Your task to perform on an android device: View the shopping cart on amazon. Search for "acer nitro" on amazon, select the first entry, add it to the cart, then select checkout. Image 0: 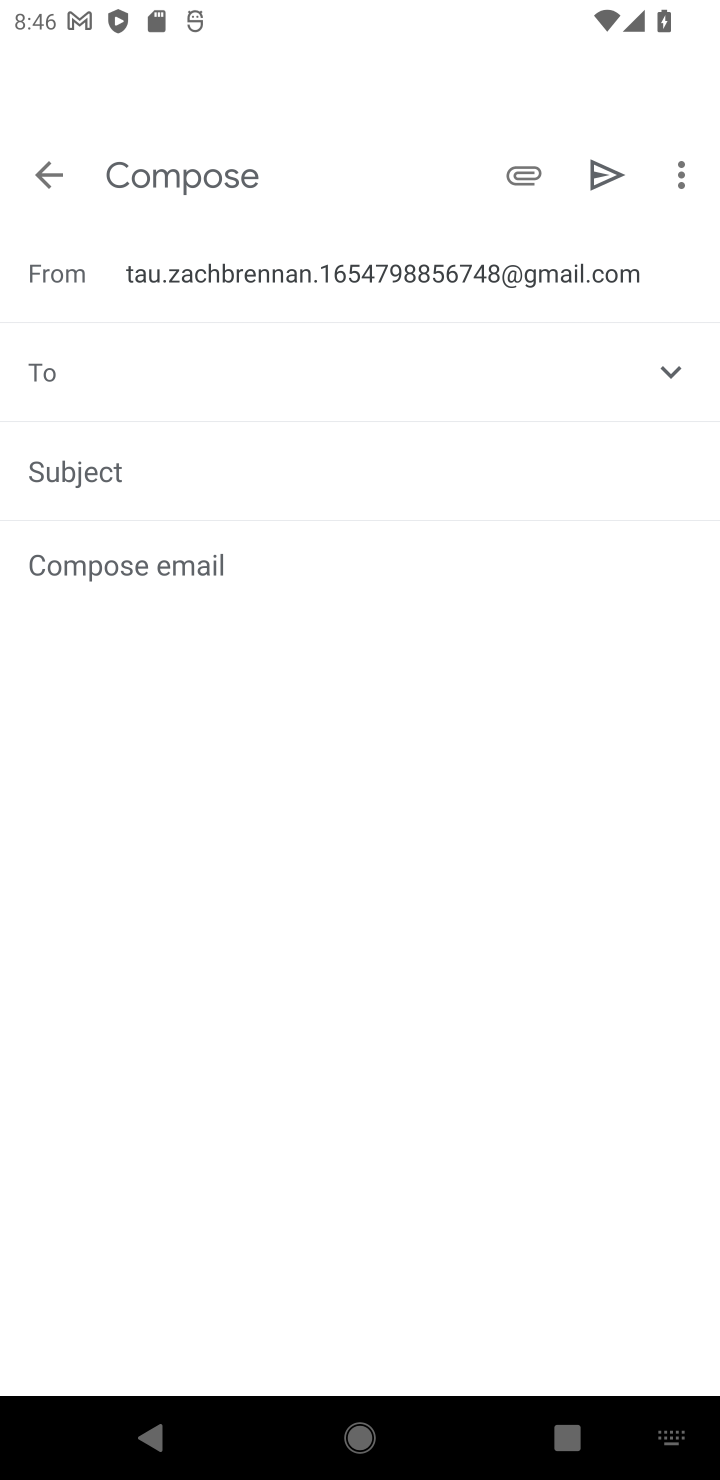
Step 0: press home button
Your task to perform on an android device: View the shopping cart on amazon. Search for "acer nitro" on amazon, select the first entry, add it to the cart, then select checkout. Image 1: 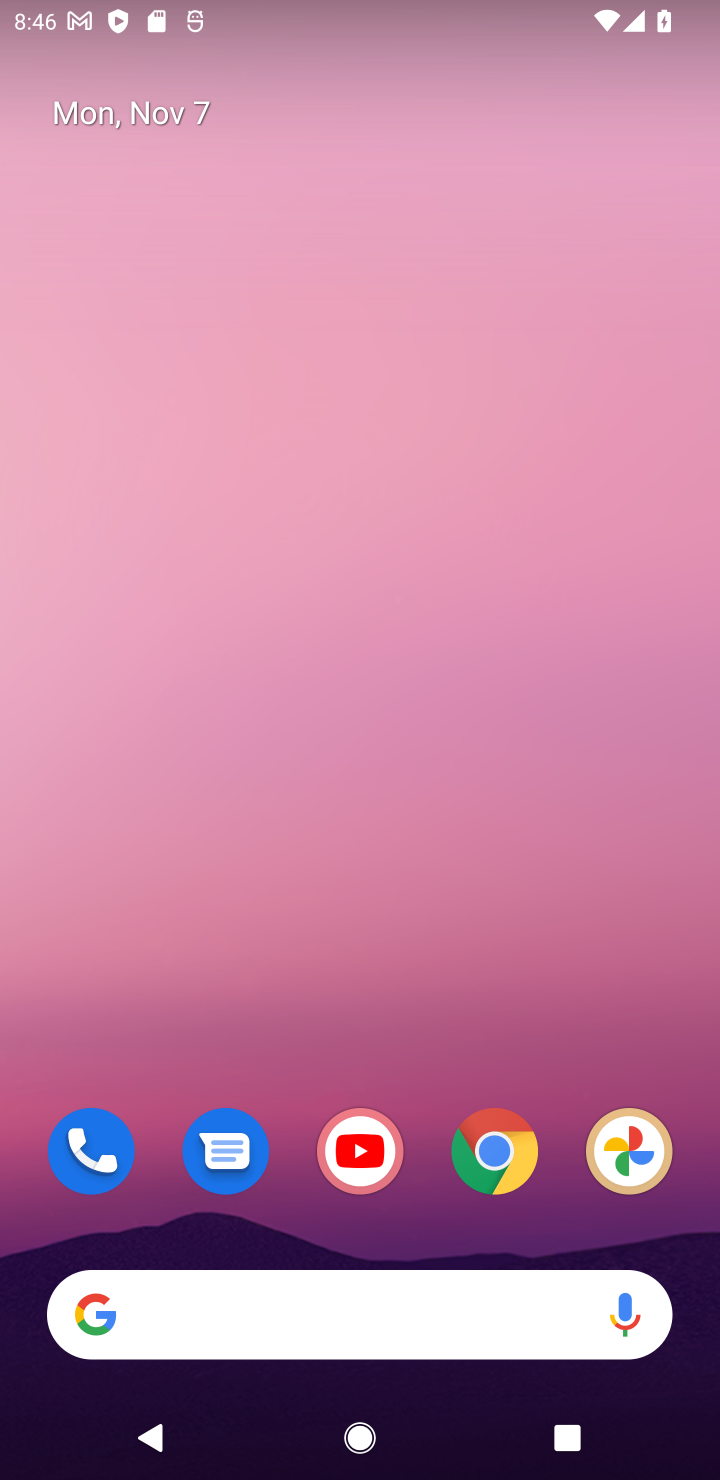
Step 1: click (481, 1161)
Your task to perform on an android device: View the shopping cart on amazon. Search for "acer nitro" on amazon, select the first entry, add it to the cart, then select checkout. Image 2: 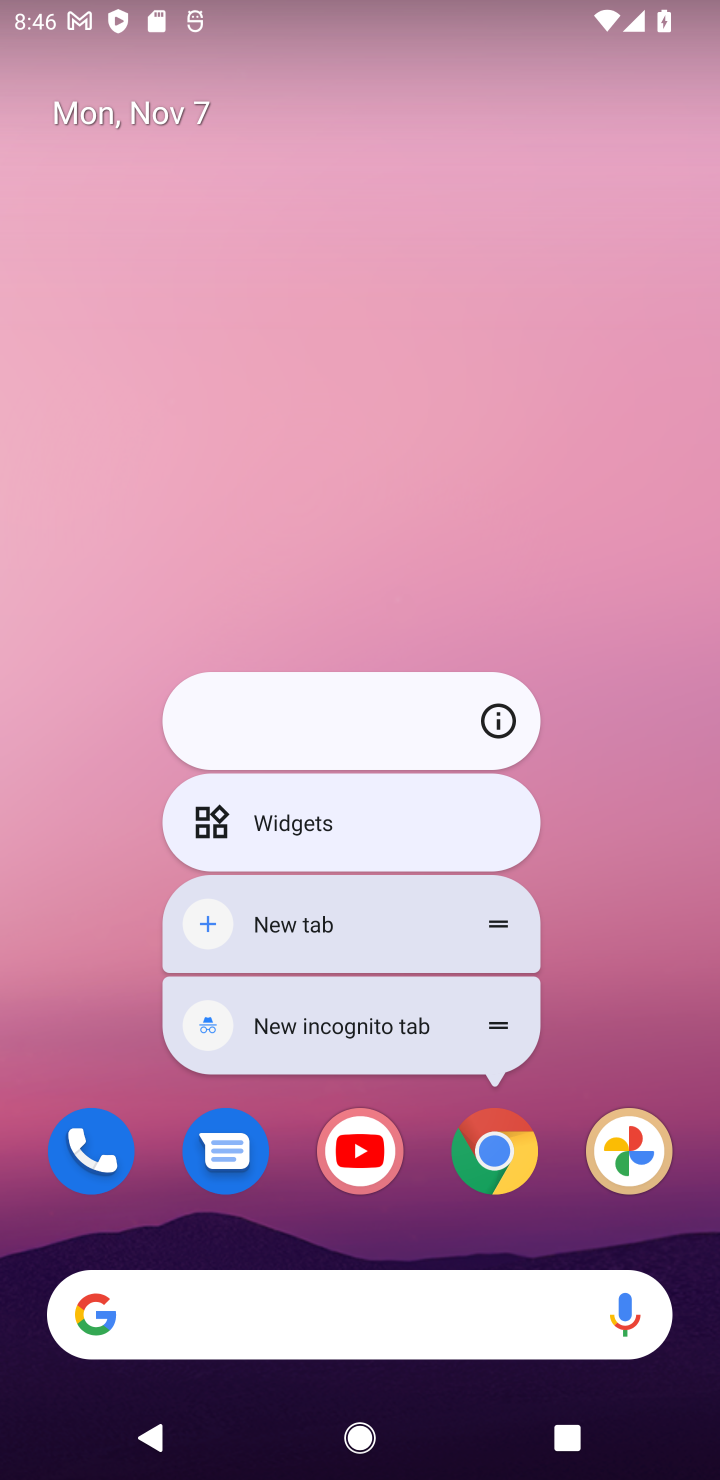
Step 2: click (481, 1161)
Your task to perform on an android device: View the shopping cart on amazon. Search for "acer nitro" on amazon, select the first entry, add it to the cart, then select checkout. Image 3: 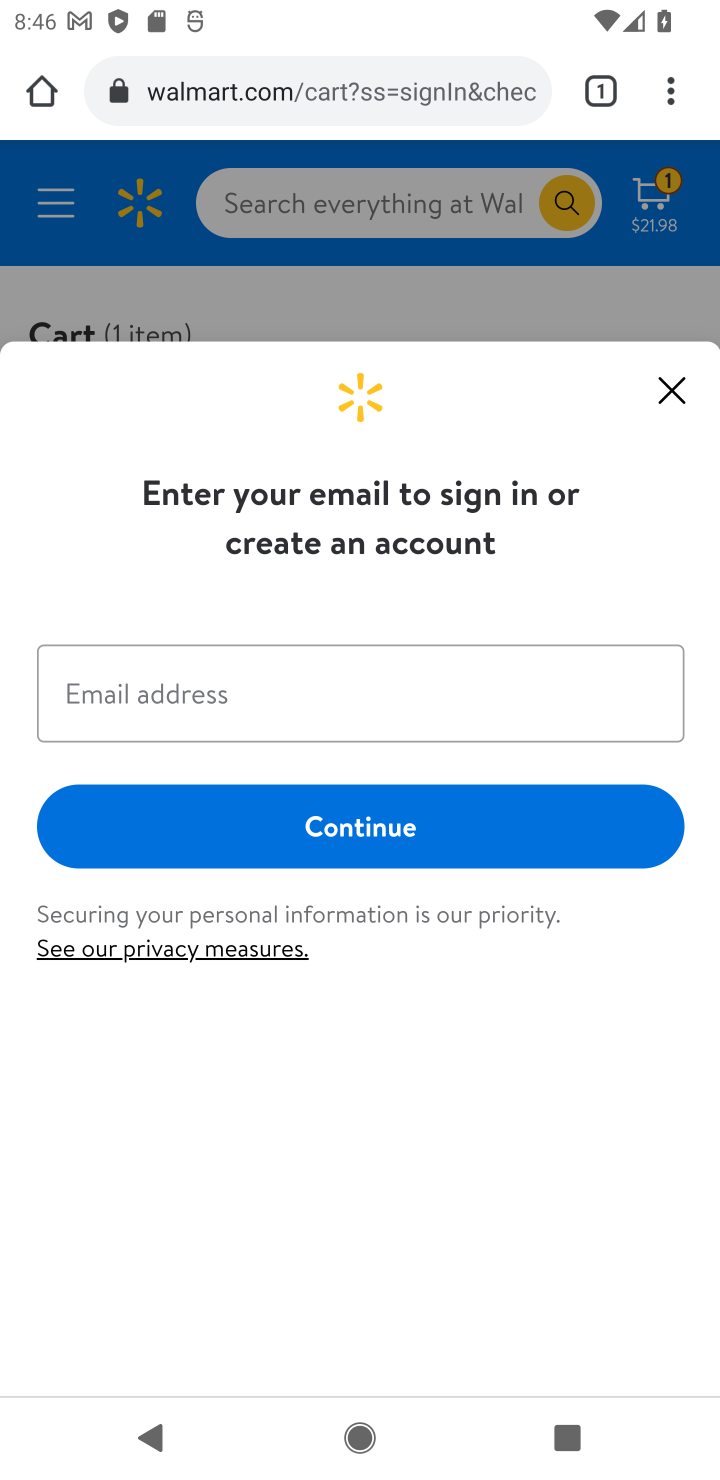
Step 3: click (343, 94)
Your task to perform on an android device: View the shopping cart on amazon. Search for "acer nitro" on amazon, select the first entry, add it to the cart, then select checkout. Image 4: 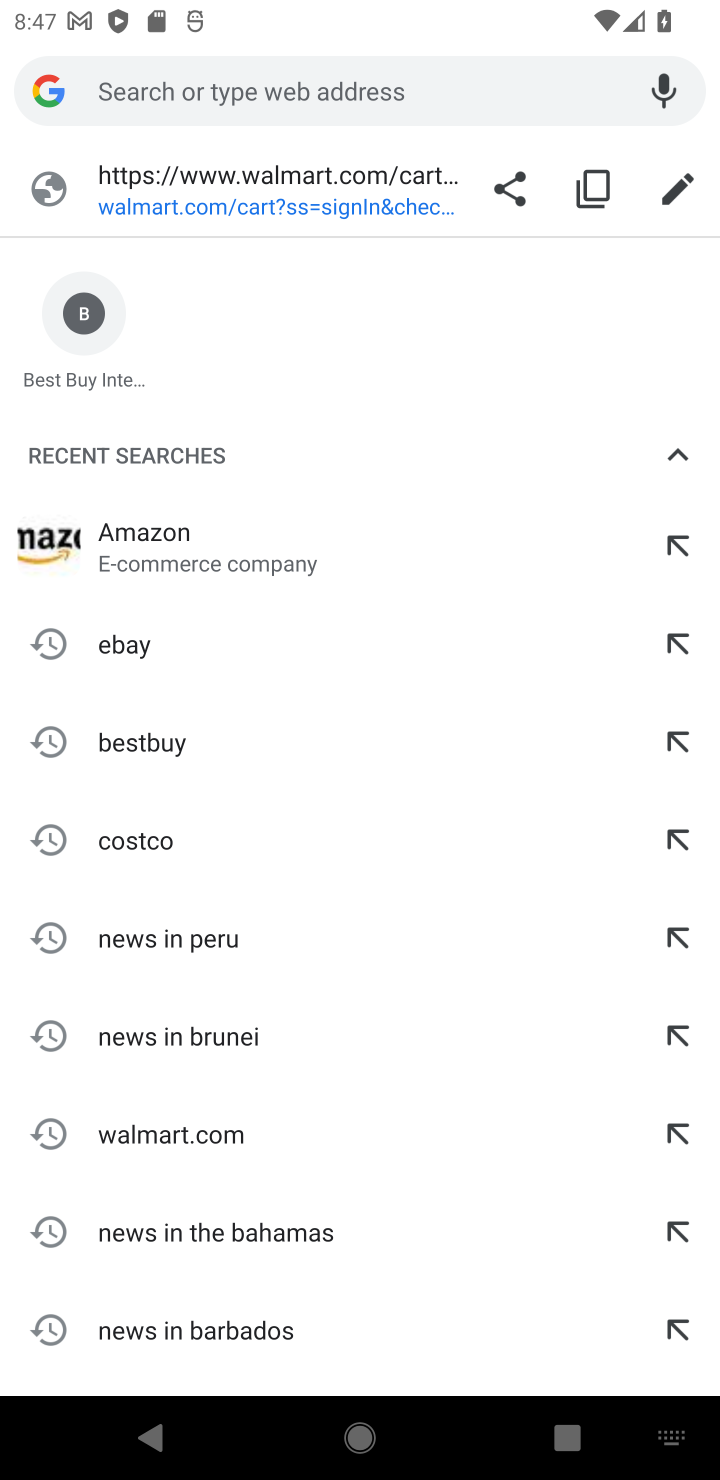
Step 4: click (158, 543)
Your task to perform on an android device: View the shopping cart on amazon. Search for "acer nitro" on amazon, select the first entry, add it to the cart, then select checkout. Image 5: 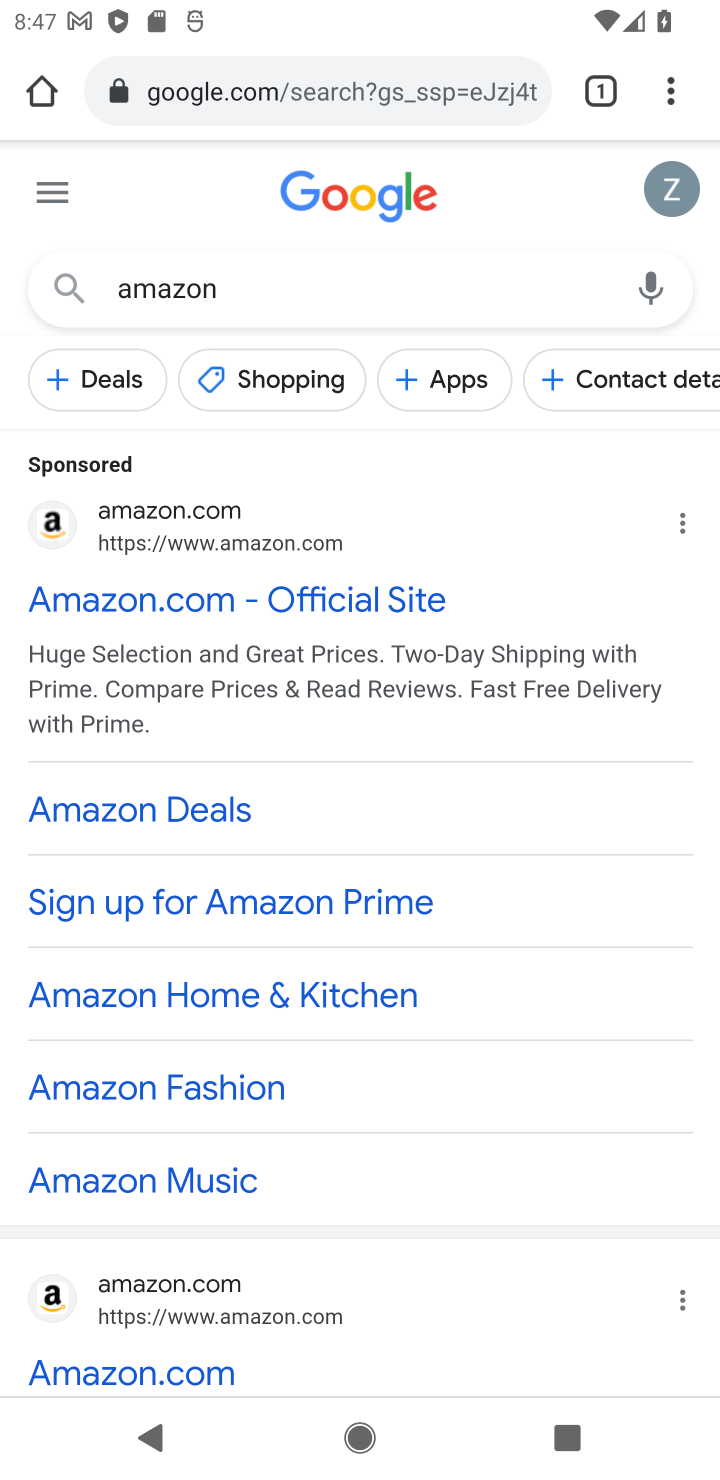
Step 5: click (203, 601)
Your task to perform on an android device: View the shopping cart on amazon. Search for "acer nitro" on amazon, select the first entry, add it to the cart, then select checkout. Image 6: 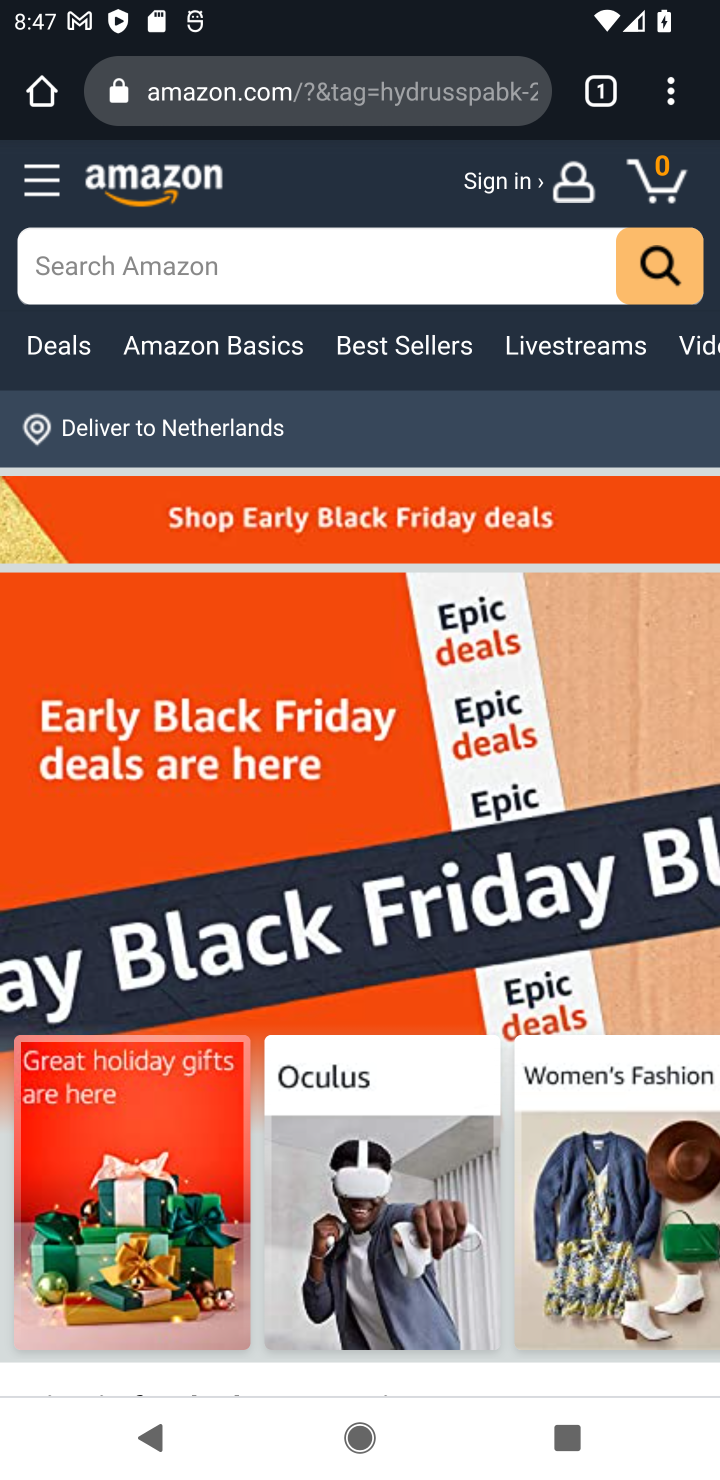
Step 6: click (57, 268)
Your task to perform on an android device: View the shopping cart on amazon. Search for "acer nitro" on amazon, select the first entry, add it to the cart, then select checkout. Image 7: 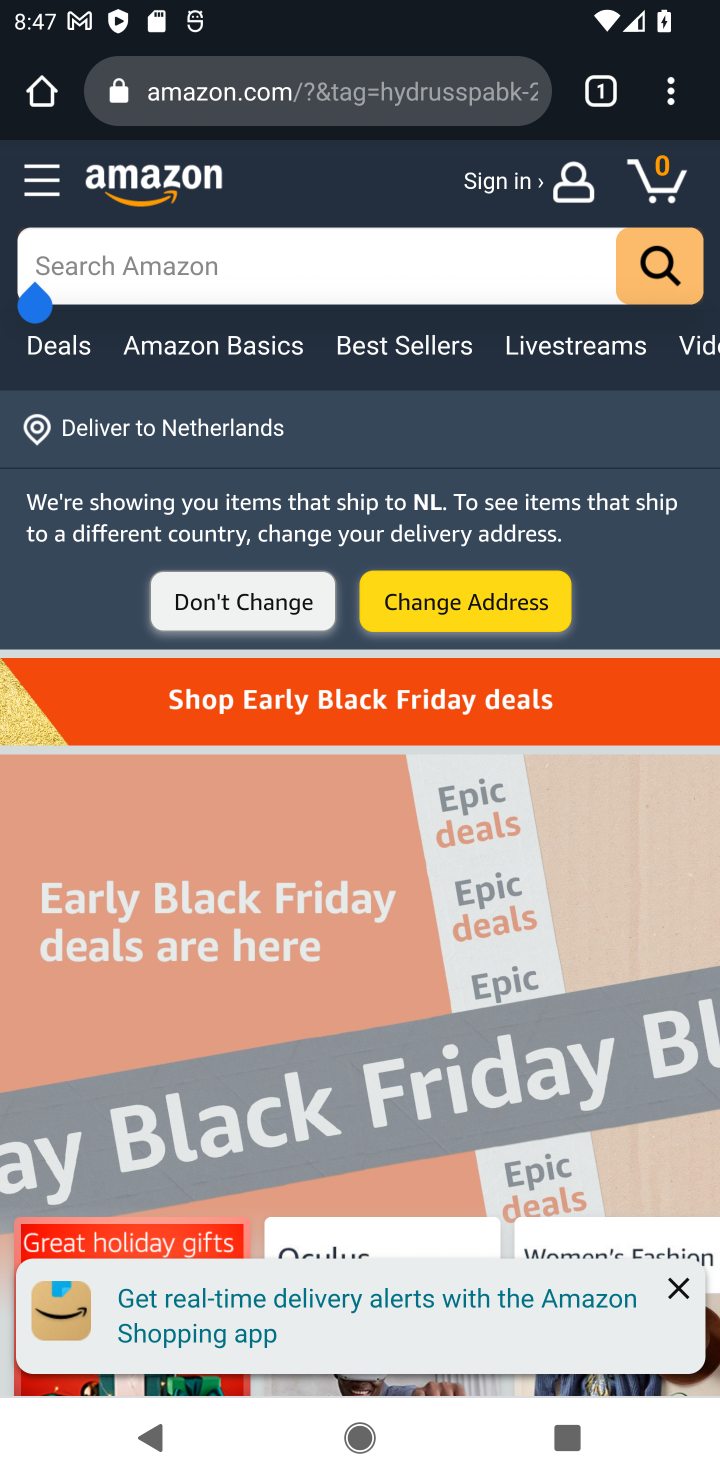
Step 7: type "acer nitro"
Your task to perform on an android device: View the shopping cart on amazon. Search for "acer nitro" on amazon, select the first entry, add it to the cart, then select checkout. Image 8: 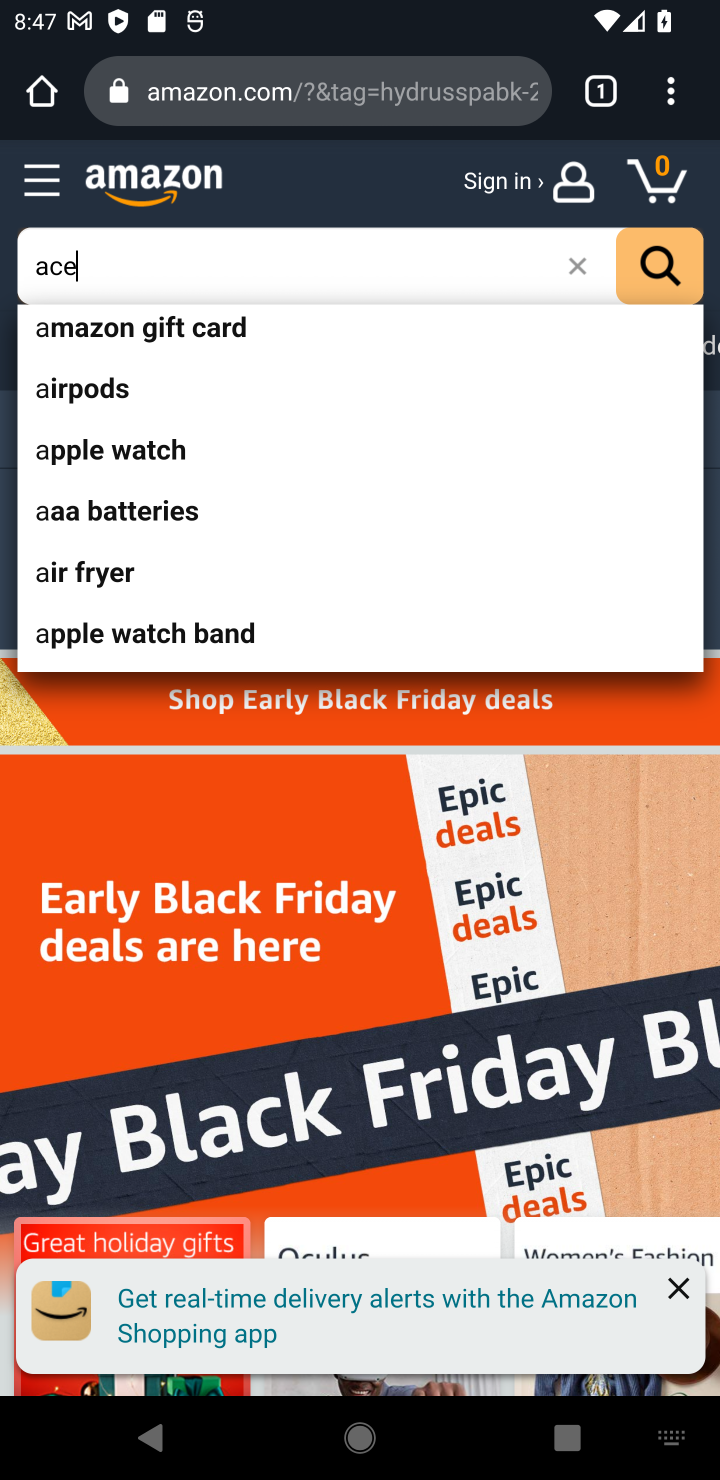
Step 8: press enter
Your task to perform on an android device: View the shopping cart on amazon. Search for "acer nitro" on amazon, select the first entry, add it to the cart, then select checkout. Image 9: 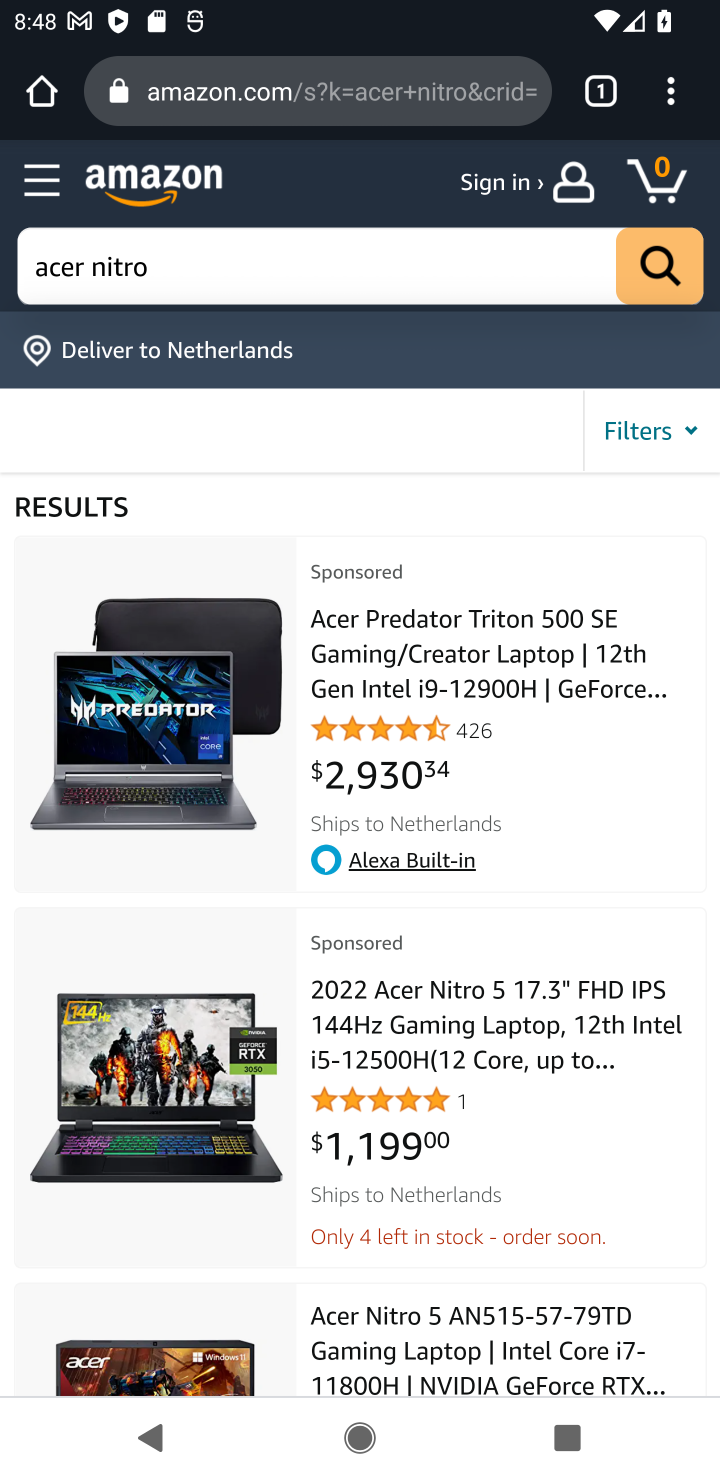
Step 9: task complete